Your task to perform on an android device: turn off data saver in the chrome app Image 0: 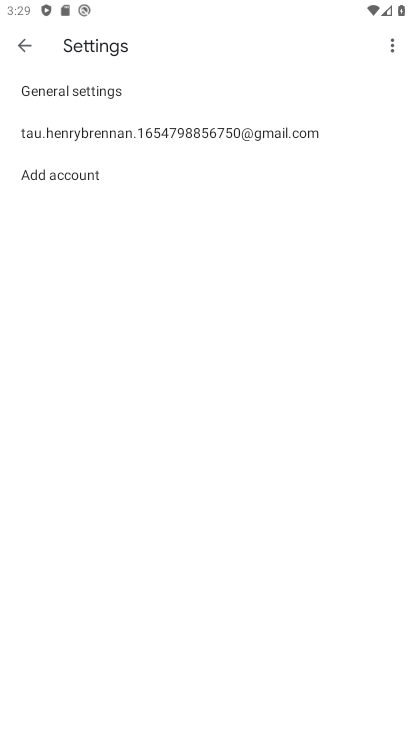
Step 0: click (12, 39)
Your task to perform on an android device: turn off data saver in the chrome app Image 1: 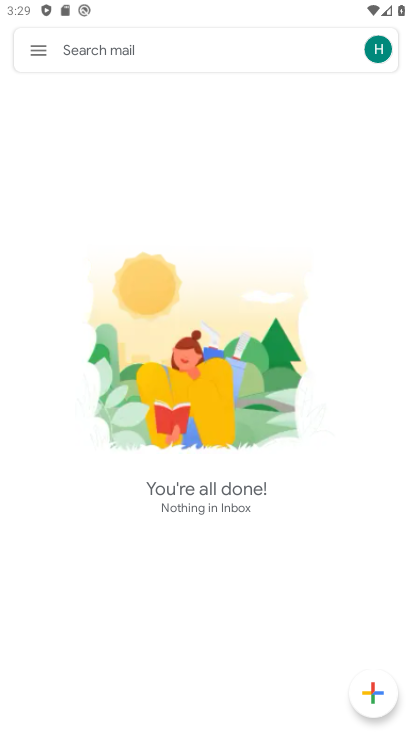
Step 1: click (33, 51)
Your task to perform on an android device: turn off data saver in the chrome app Image 2: 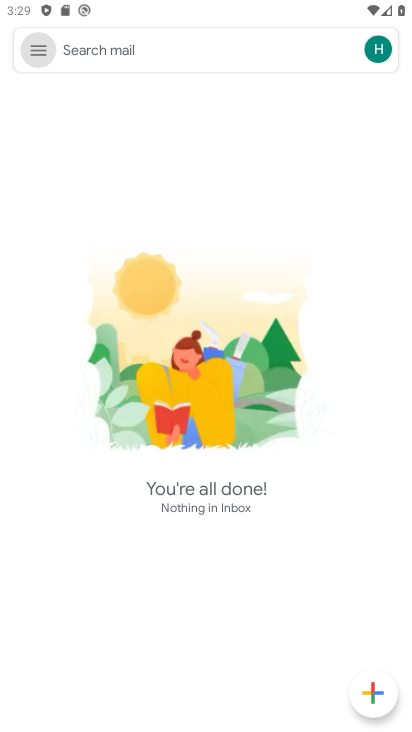
Step 2: click (33, 51)
Your task to perform on an android device: turn off data saver in the chrome app Image 3: 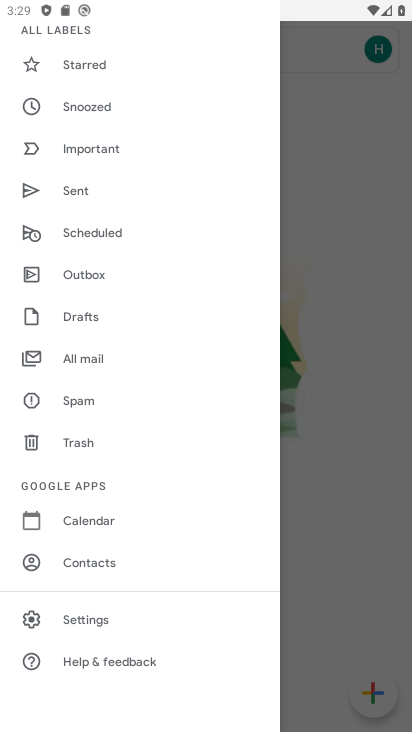
Step 3: click (83, 618)
Your task to perform on an android device: turn off data saver in the chrome app Image 4: 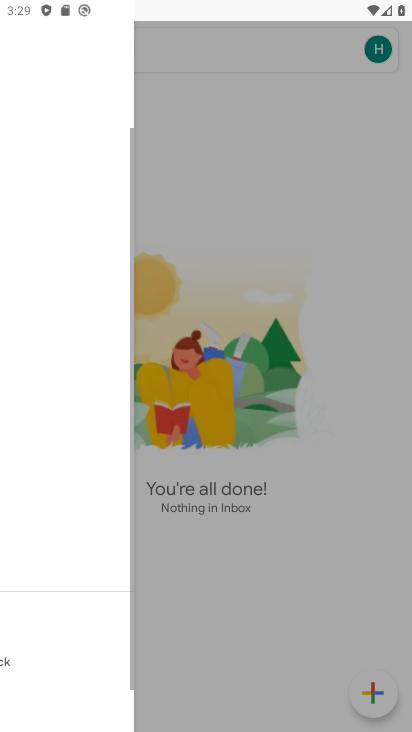
Step 4: click (87, 612)
Your task to perform on an android device: turn off data saver in the chrome app Image 5: 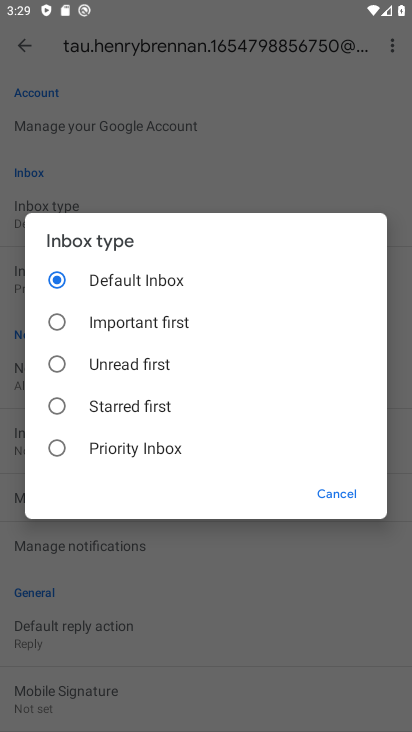
Step 5: click (255, 139)
Your task to perform on an android device: turn off data saver in the chrome app Image 6: 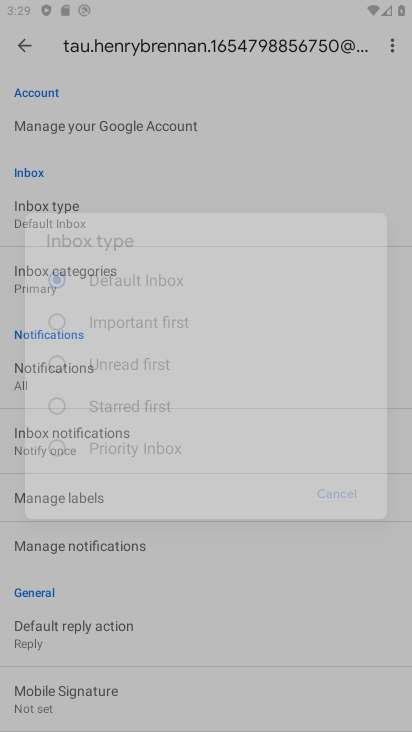
Step 6: click (256, 142)
Your task to perform on an android device: turn off data saver in the chrome app Image 7: 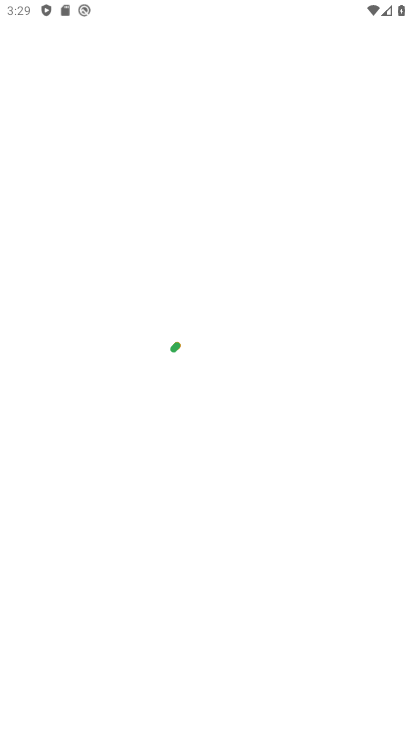
Step 7: press back button
Your task to perform on an android device: turn off data saver in the chrome app Image 8: 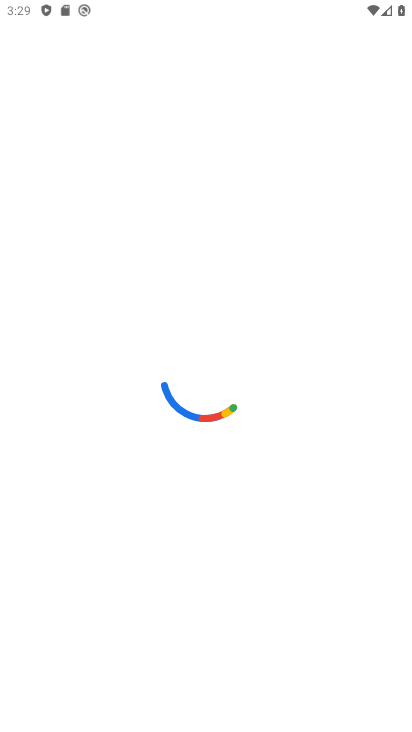
Step 8: press back button
Your task to perform on an android device: turn off data saver in the chrome app Image 9: 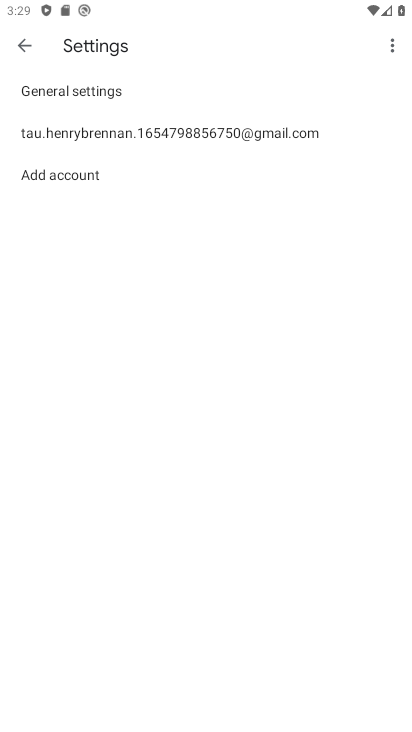
Step 9: click (23, 35)
Your task to perform on an android device: turn off data saver in the chrome app Image 10: 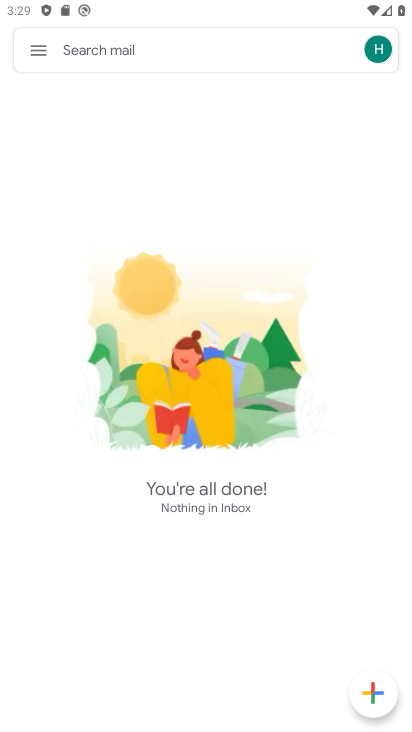
Step 10: click (32, 55)
Your task to perform on an android device: turn off data saver in the chrome app Image 11: 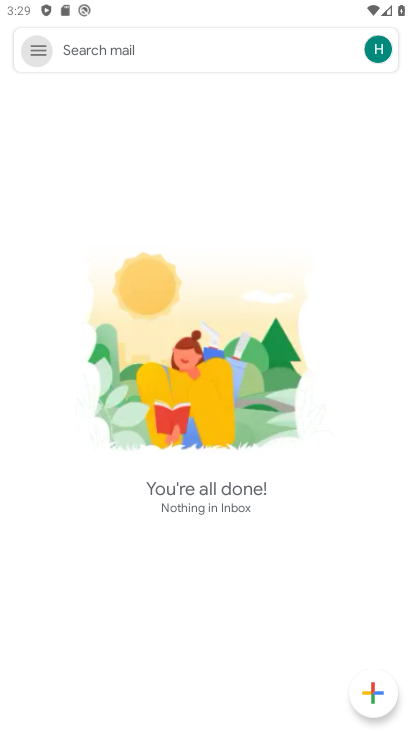
Step 11: click (33, 54)
Your task to perform on an android device: turn off data saver in the chrome app Image 12: 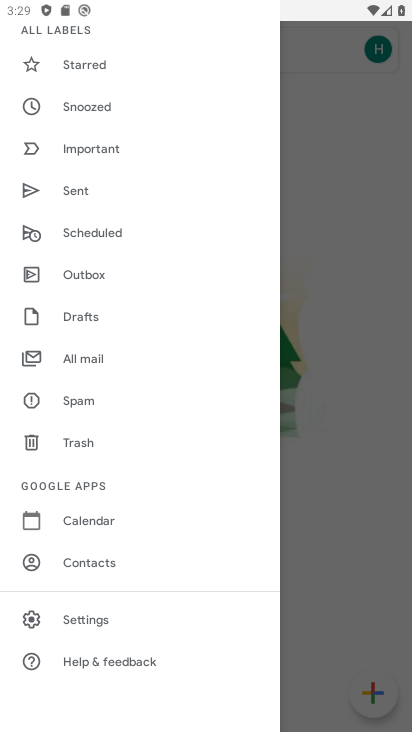
Step 12: click (88, 615)
Your task to perform on an android device: turn off data saver in the chrome app Image 13: 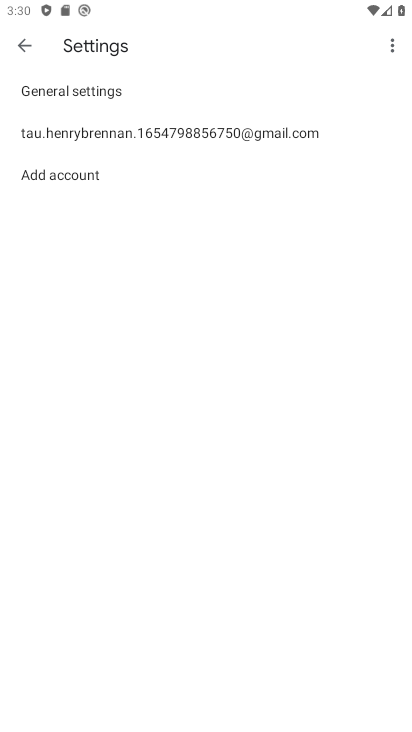
Step 13: press back button
Your task to perform on an android device: turn off data saver in the chrome app Image 14: 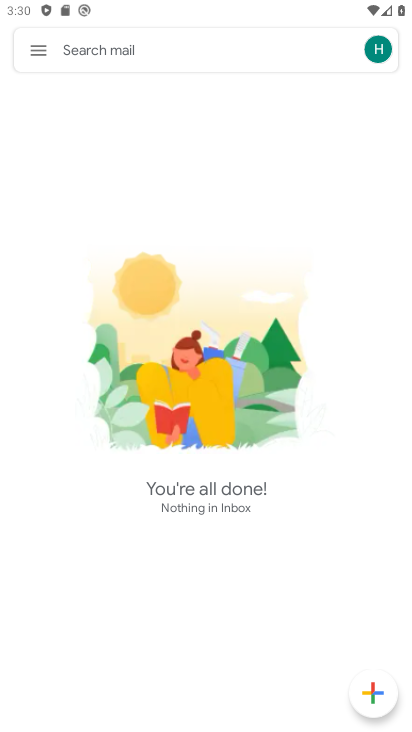
Step 14: press back button
Your task to perform on an android device: turn off data saver in the chrome app Image 15: 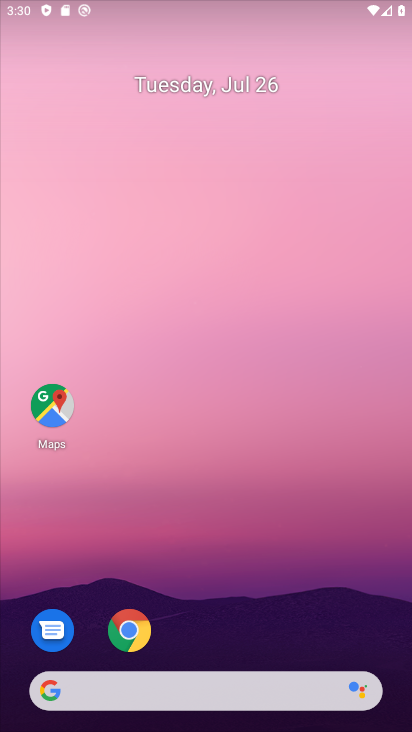
Step 15: drag from (231, 638) to (192, 0)
Your task to perform on an android device: turn off data saver in the chrome app Image 16: 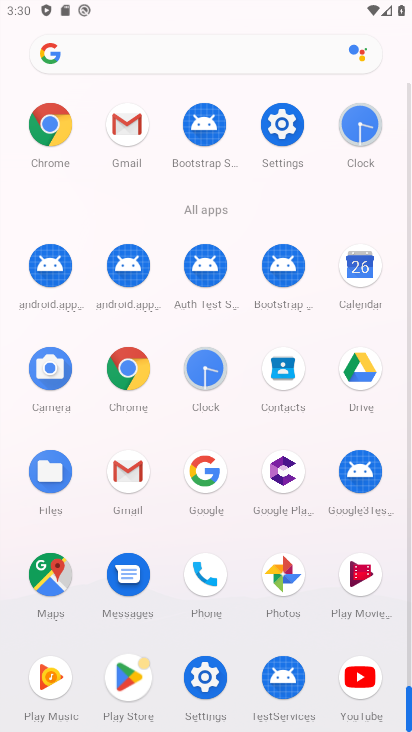
Step 16: click (52, 130)
Your task to perform on an android device: turn off data saver in the chrome app Image 17: 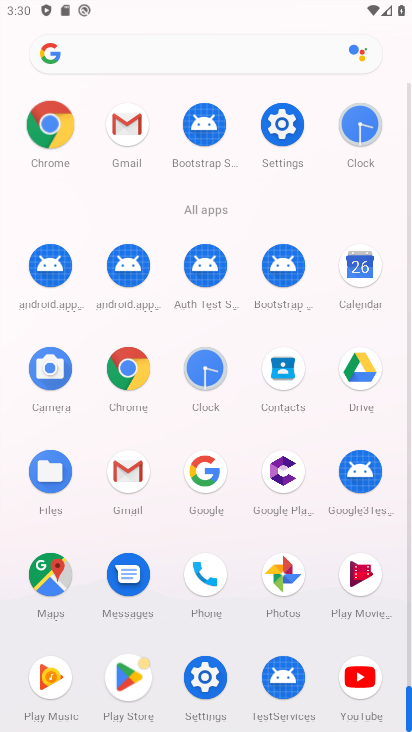
Step 17: click (52, 130)
Your task to perform on an android device: turn off data saver in the chrome app Image 18: 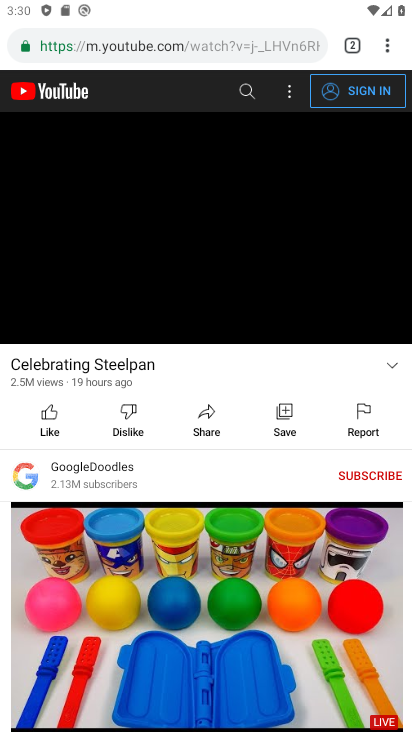
Step 18: drag from (392, 49) to (213, 507)
Your task to perform on an android device: turn off data saver in the chrome app Image 19: 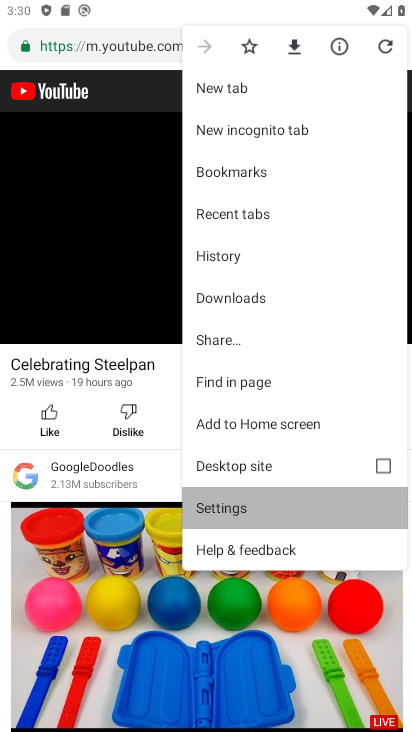
Step 19: click (214, 506)
Your task to perform on an android device: turn off data saver in the chrome app Image 20: 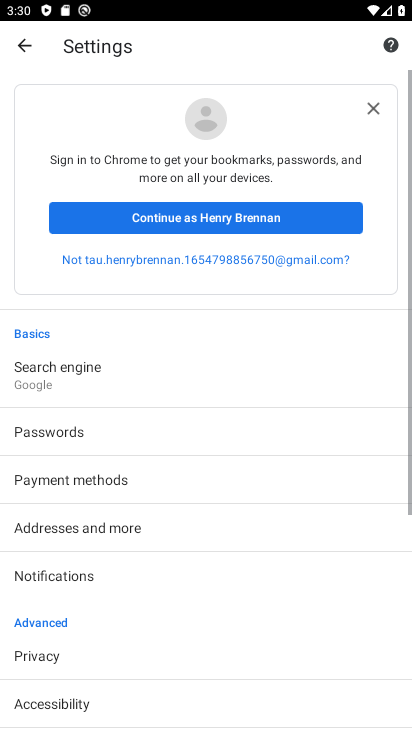
Step 20: drag from (100, 598) to (99, 94)
Your task to perform on an android device: turn off data saver in the chrome app Image 21: 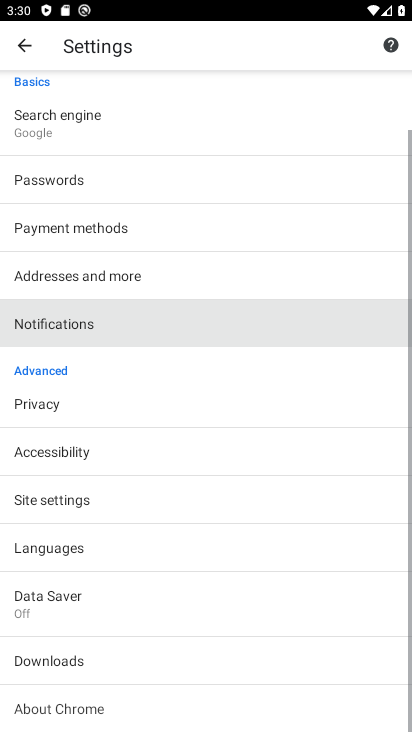
Step 21: drag from (126, 467) to (142, 109)
Your task to perform on an android device: turn off data saver in the chrome app Image 22: 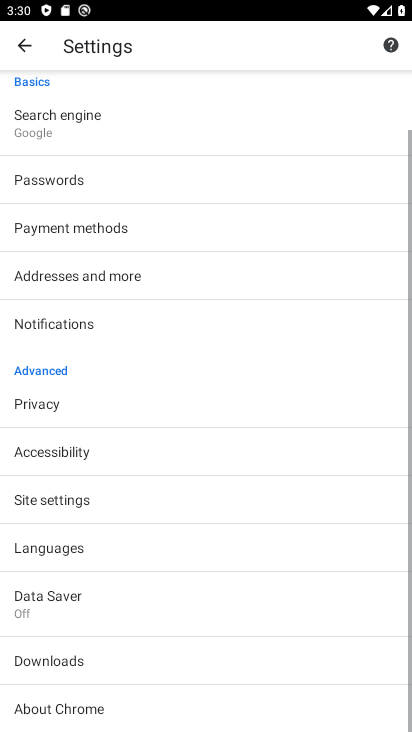
Step 22: drag from (161, 403) to (144, 554)
Your task to perform on an android device: turn off data saver in the chrome app Image 23: 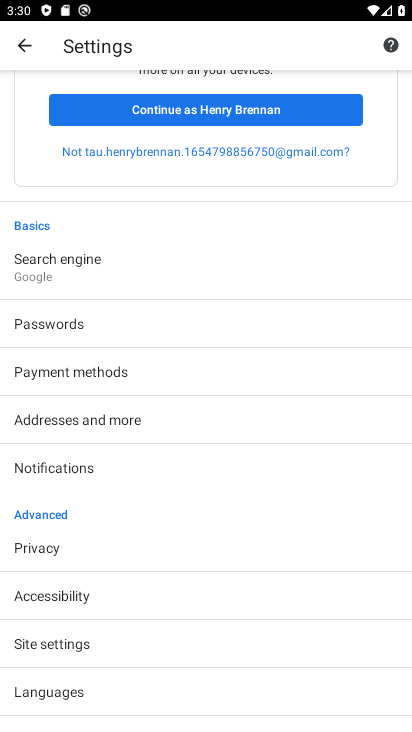
Step 23: drag from (67, 625) to (77, 248)
Your task to perform on an android device: turn off data saver in the chrome app Image 24: 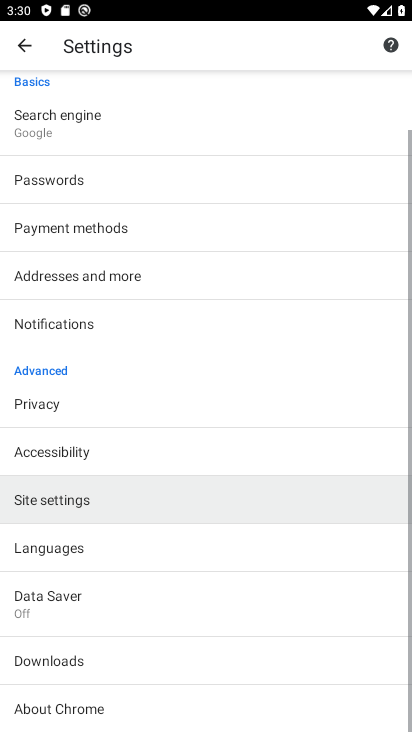
Step 24: drag from (108, 541) to (138, 288)
Your task to perform on an android device: turn off data saver in the chrome app Image 25: 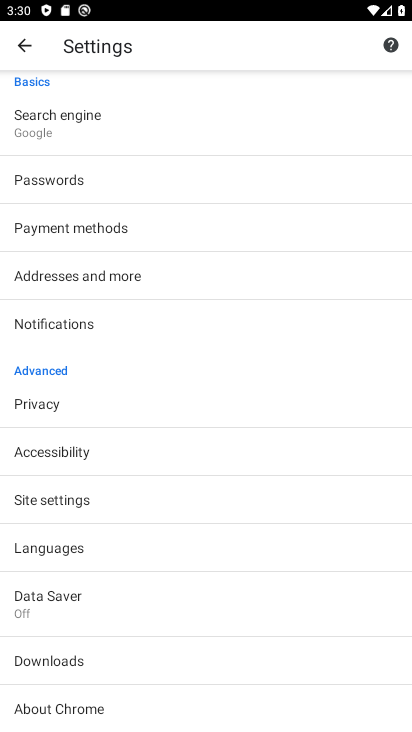
Step 25: click (40, 595)
Your task to perform on an android device: turn off data saver in the chrome app Image 26: 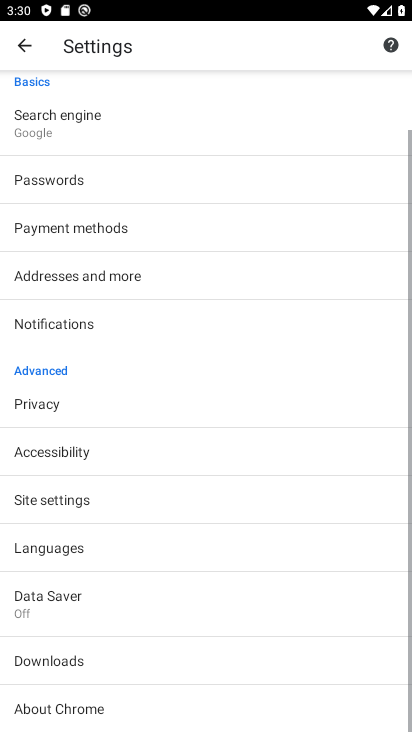
Step 26: click (40, 596)
Your task to perform on an android device: turn off data saver in the chrome app Image 27: 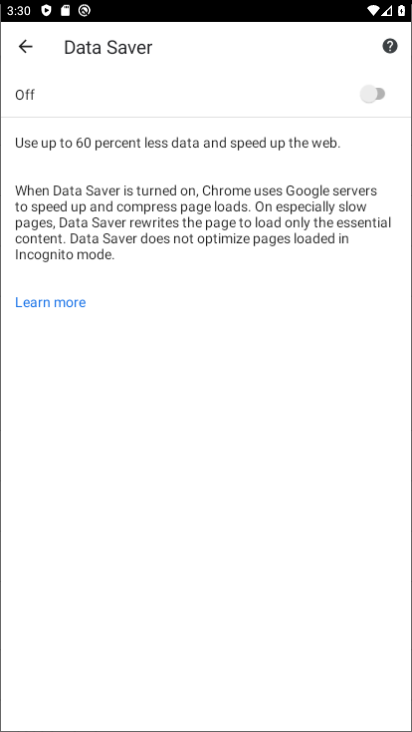
Step 27: click (40, 596)
Your task to perform on an android device: turn off data saver in the chrome app Image 28: 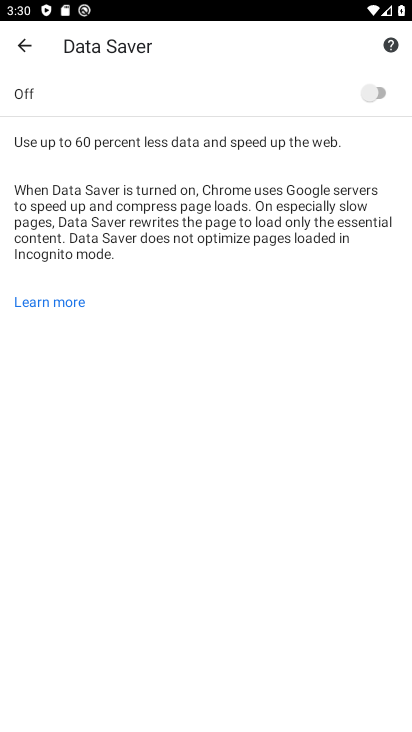
Step 28: click (375, 87)
Your task to perform on an android device: turn off data saver in the chrome app Image 29: 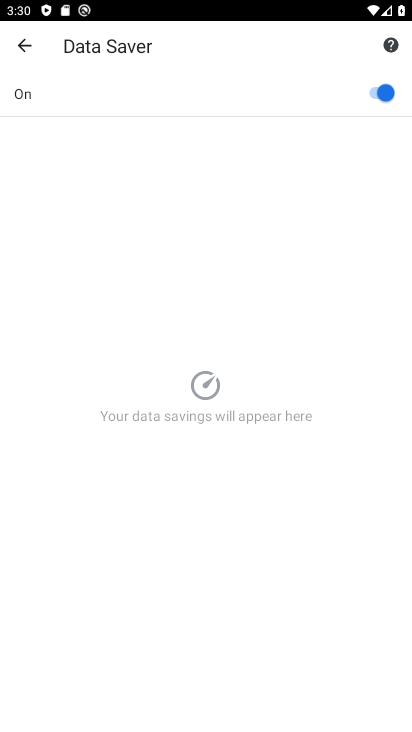
Step 29: click (377, 90)
Your task to perform on an android device: turn off data saver in the chrome app Image 30: 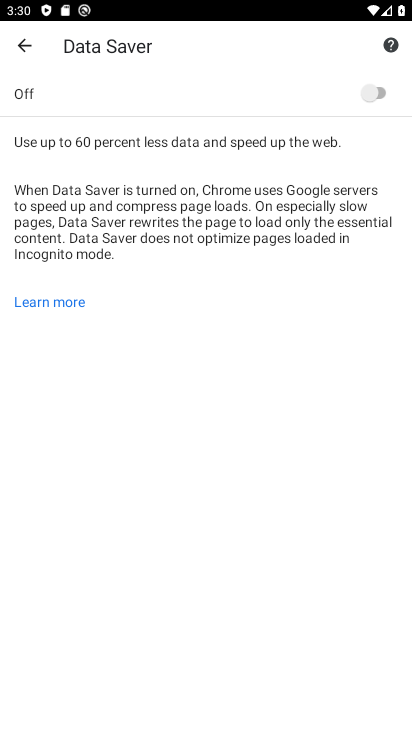
Step 30: task complete